Your task to perform on an android device: find photos in the google photos app Image 0: 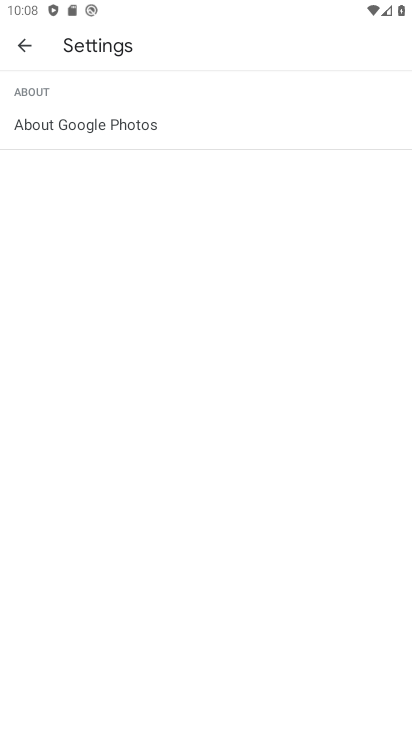
Step 0: press home button
Your task to perform on an android device: find photos in the google photos app Image 1: 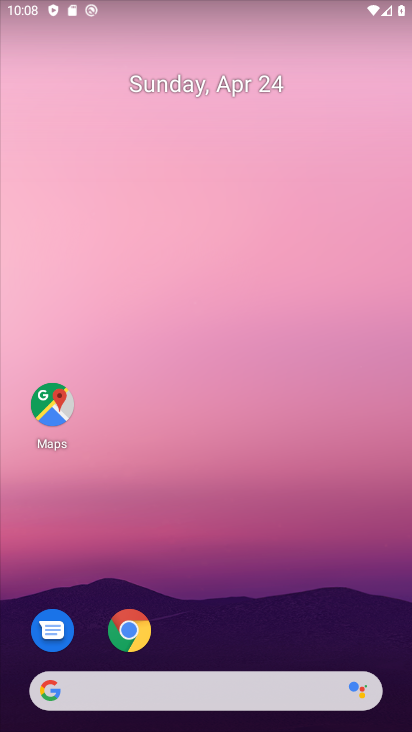
Step 1: drag from (210, 526) to (210, 129)
Your task to perform on an android device: find photos in the google photos app Image 2: 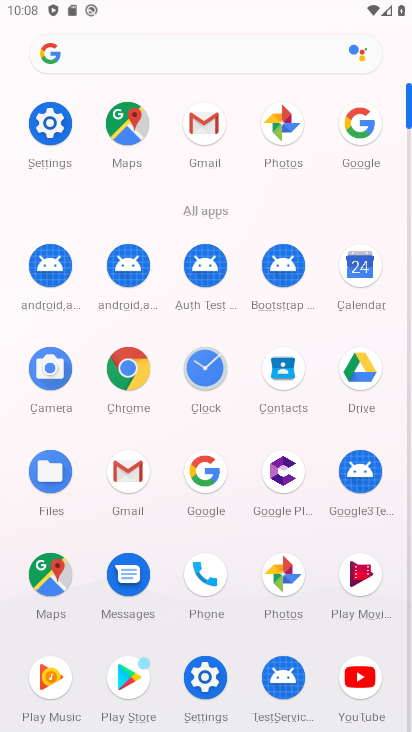
Step 2: click (275, 145)
Your task to perform on an android device: find photos in the google photos app Image 3: 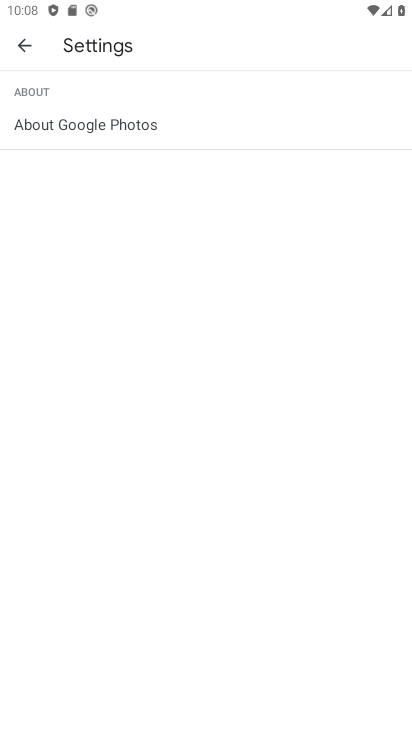
Step 3: click (20, 44)
Your task to perform on an android device: find photos in the google photos app Image 4: 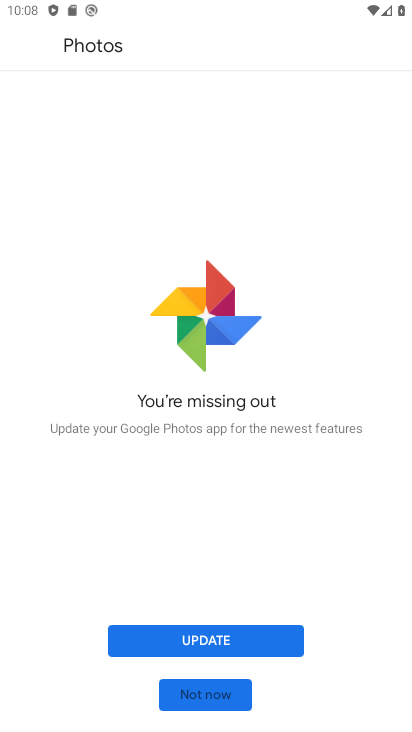
Step 4: click (114, 57)
Your task to perform on an android device: find photos in the google photos app Image 5: 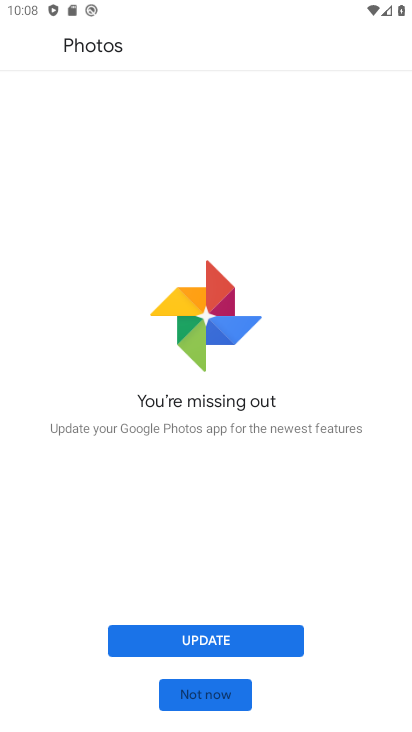
Step 5: click (219, 690)
Your task to perform on an android device: find photos in the google photos app Image 6: 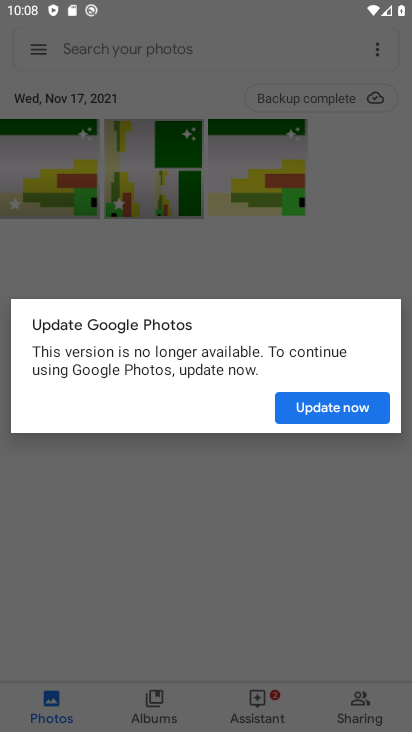
Step 6: click (300, 403)
Your task to perform on an android device: find photos in the google photos app Image 7: 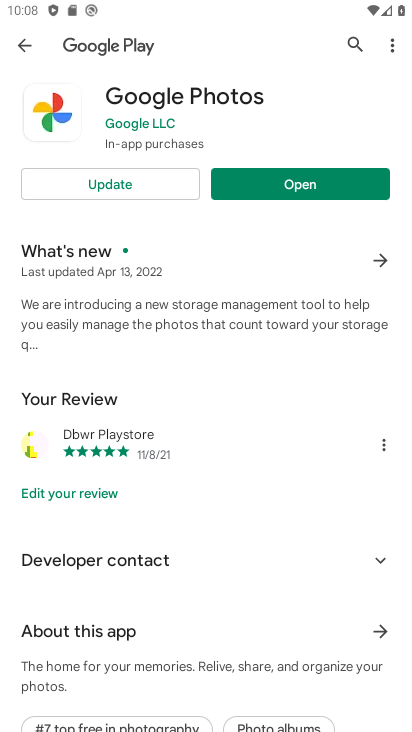
Step 7: click (273, 177)
Your task to perform on an android device: find photos in the google photos app Image 8: 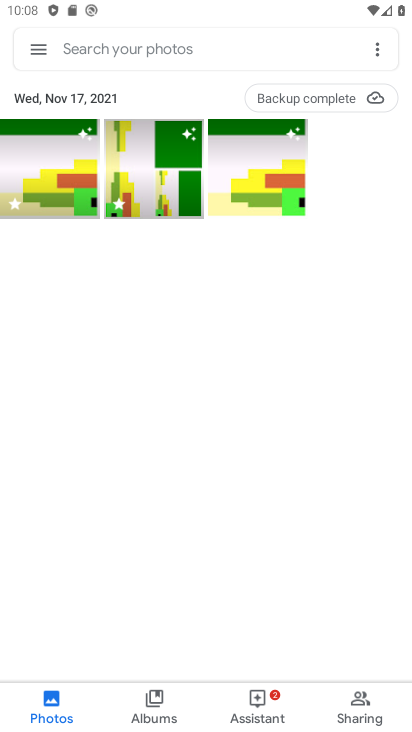
Step 8: click (191, 40)
Your task to perform on an android device: find photos in the google photos app Image 9: 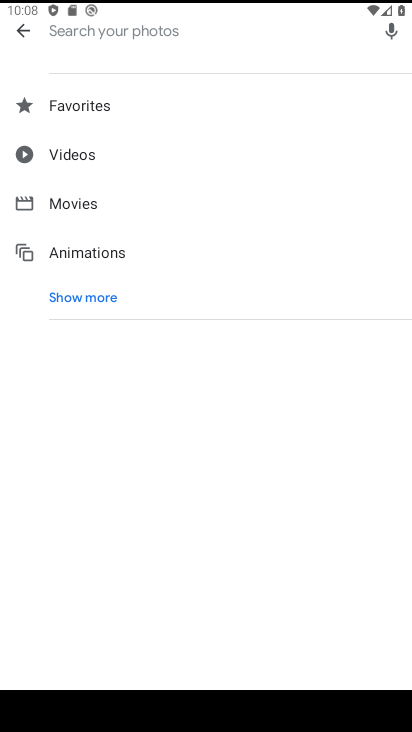
Step 9: type "aa"
Your task to perform on an android device: find photos in the google photos app Image 10: 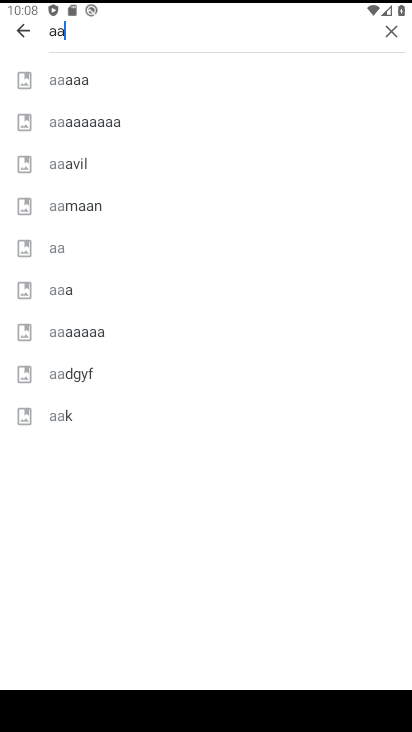
Step 10: click (103, 200)
Your task to perform on an android device: find photos in the google photos app Image 11: 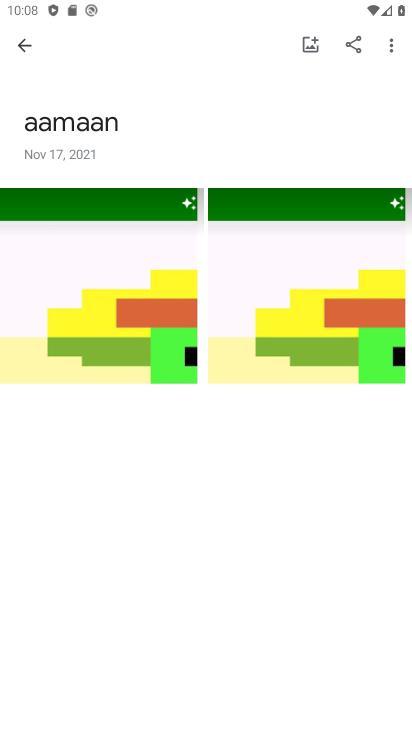
Step 11: task complete